Your task to perform on an android device: turn off notifications in google photos Image 0: 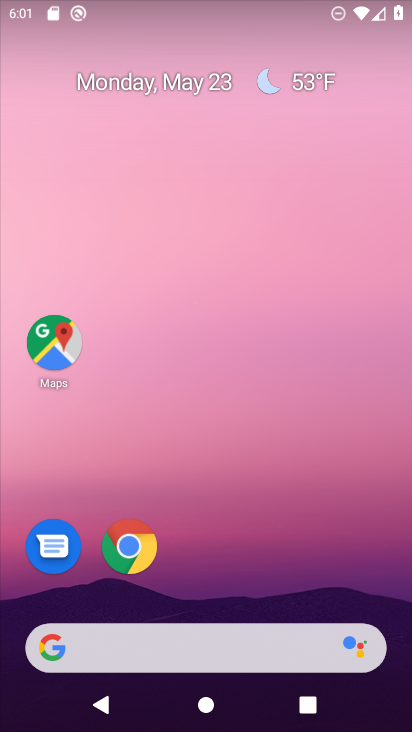
Step 0: drag from (320, 599) to (319, 283)
Your task to perform on an android device: turn off notifications in google photos Image 1: 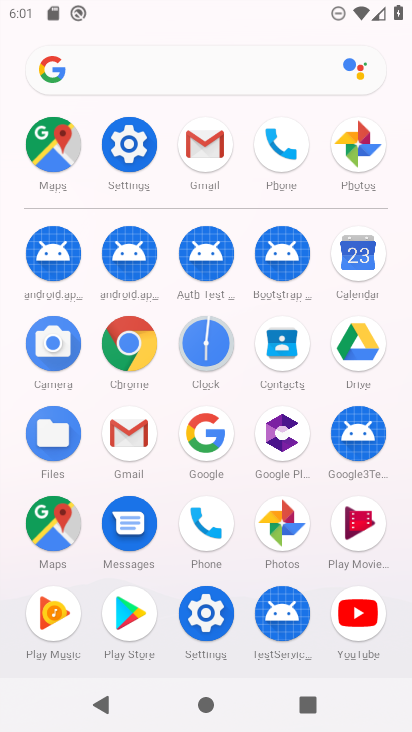
Step 1: click (280, 524)
Your task to perform on an android device: turn off notifications in google photos Image 2: 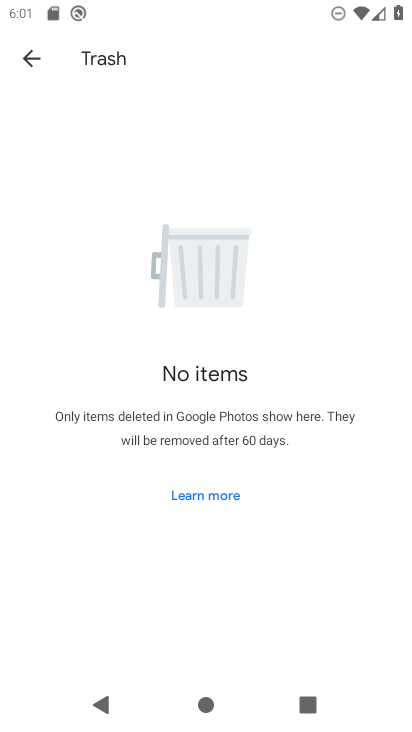
Step 2: click (35, 50)
Your task to perform on an android device: turn off notifications in google photos Image 3: 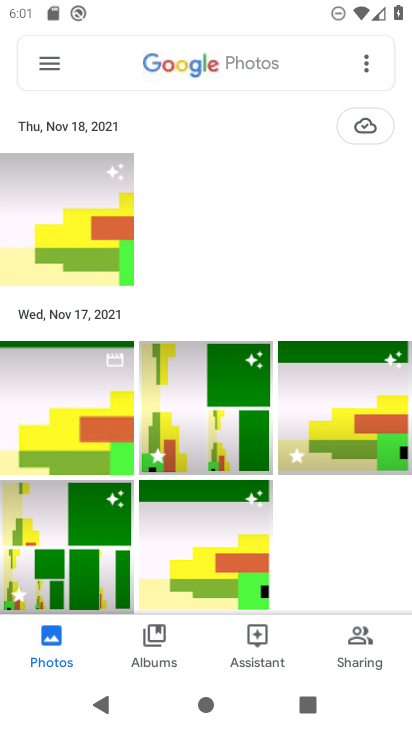
Step 3: click (56, 60)
Your task to perform on an android device: turn off notifications in google photos Image 4: 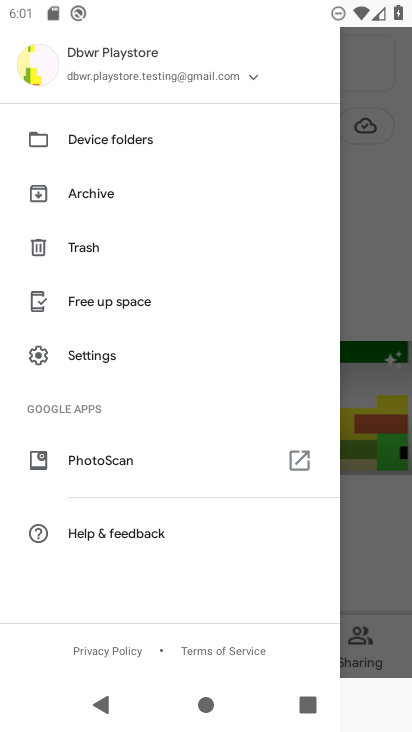
Step 4: click (96, 360)
Your task to perform on an android device: turn off notifications in google photos Image 5: 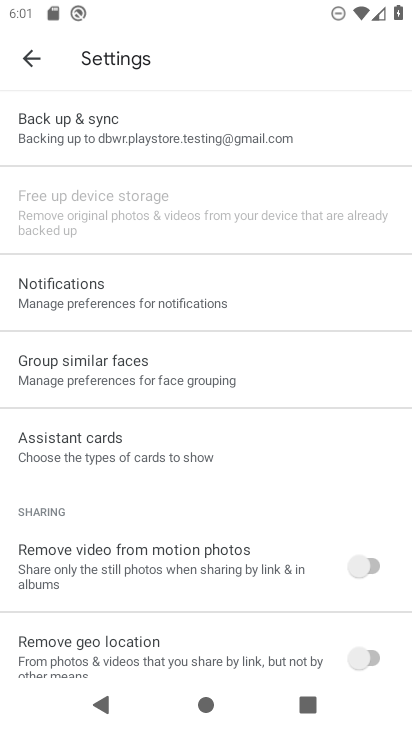
Step 5: click (155, 305)
Your task to perform on an android device: turn off notifications in google photos Image 6: 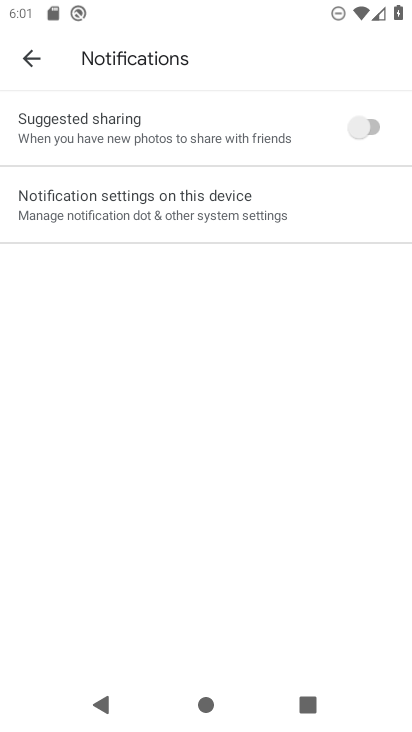
Step 6: click (212, 194)
Your task to perform on an android device: turn off notifications in google photos Image 7: 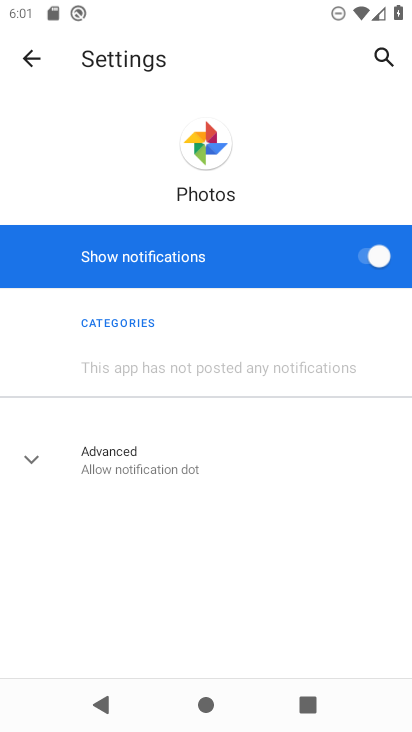
Step 7: click (360, 261)
Your task to perform on an android device: turn off notifications in google photos Image 8: 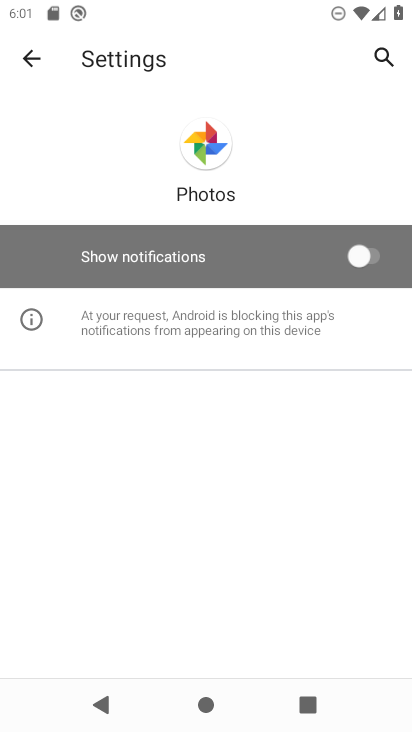
Step 8: task complete